Your task to perform on an android device: open a new tab in the chrome app Image 0: 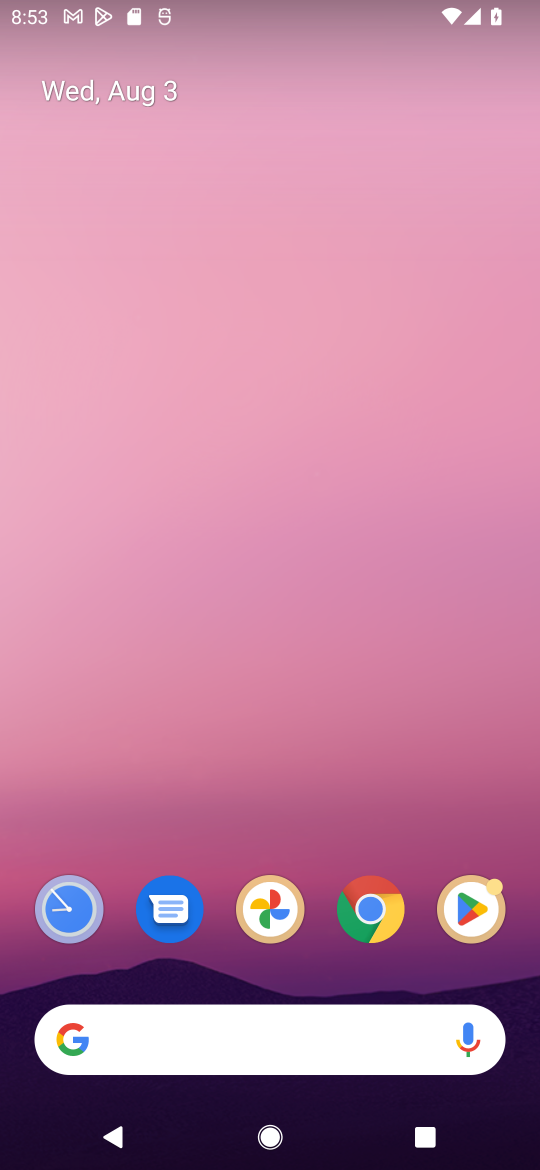
Step 0: press home button
Your task to perform on an android device: open a new tab in the chrome app Image 1: 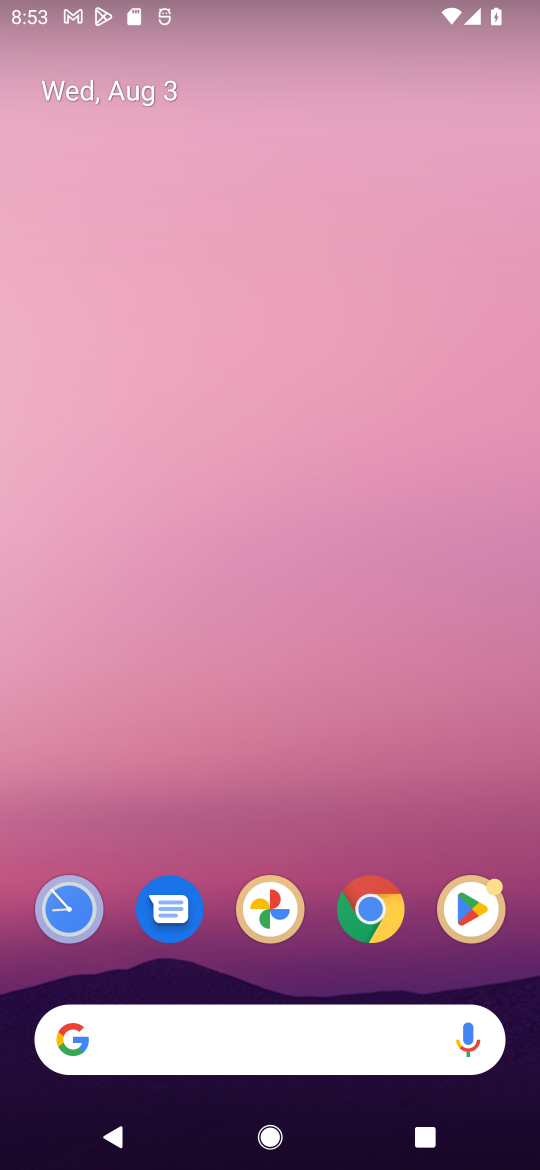
Step 1: drag from (420, 846) to (454, 372)
Your task to perform on an android device: open a new tab in the chrome app Image 2: 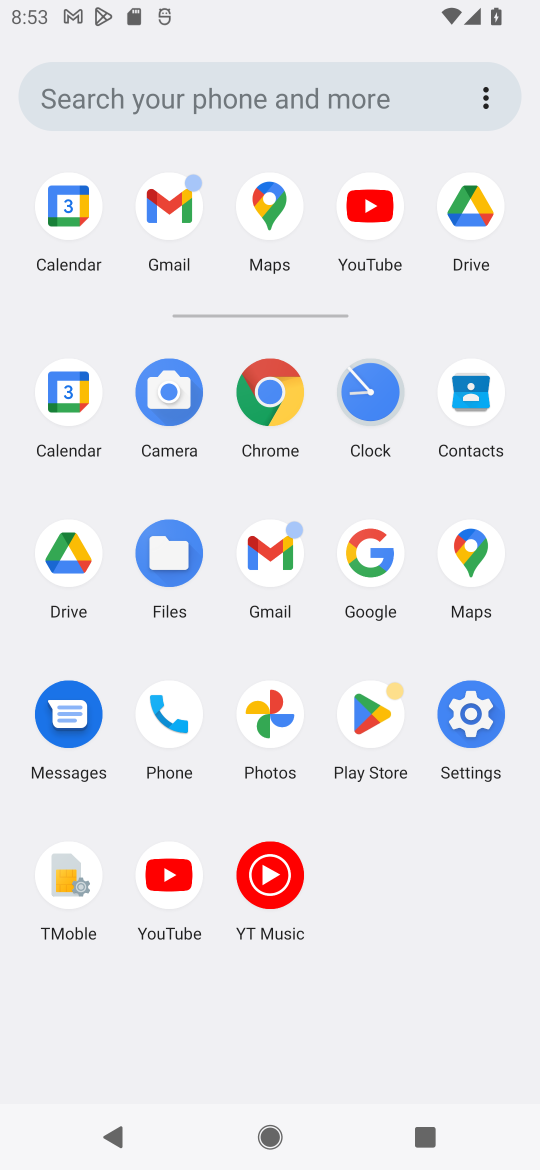
Step 2: click (276, 389)
Your task to perform on an android device: open a new tab in the chrome app Image 3: 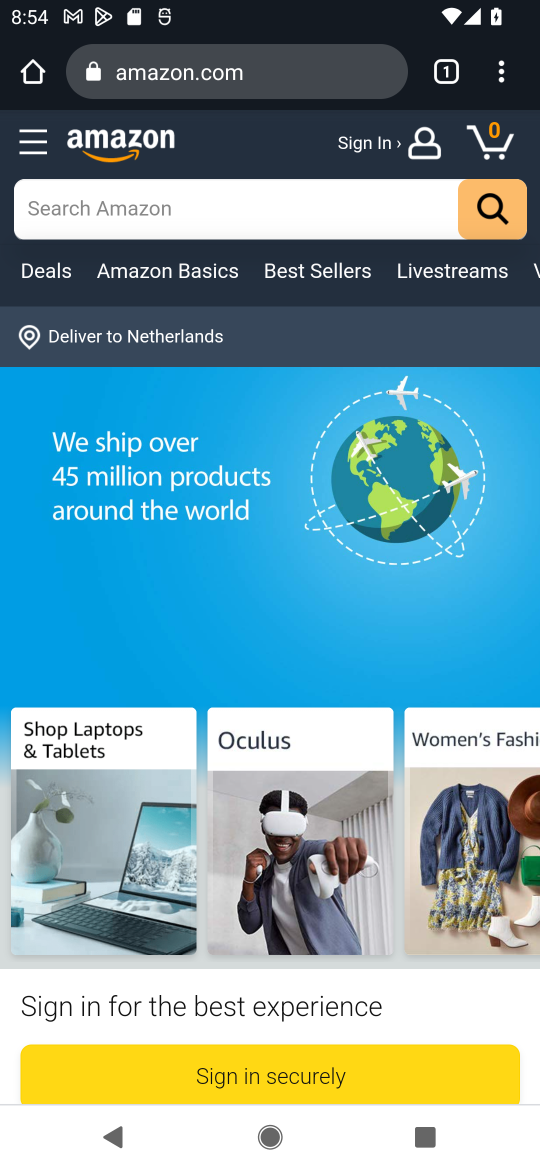
Step 3: click (508, 79)
Your task to perform on an android device: open a new tab in the chrome app Image 4: 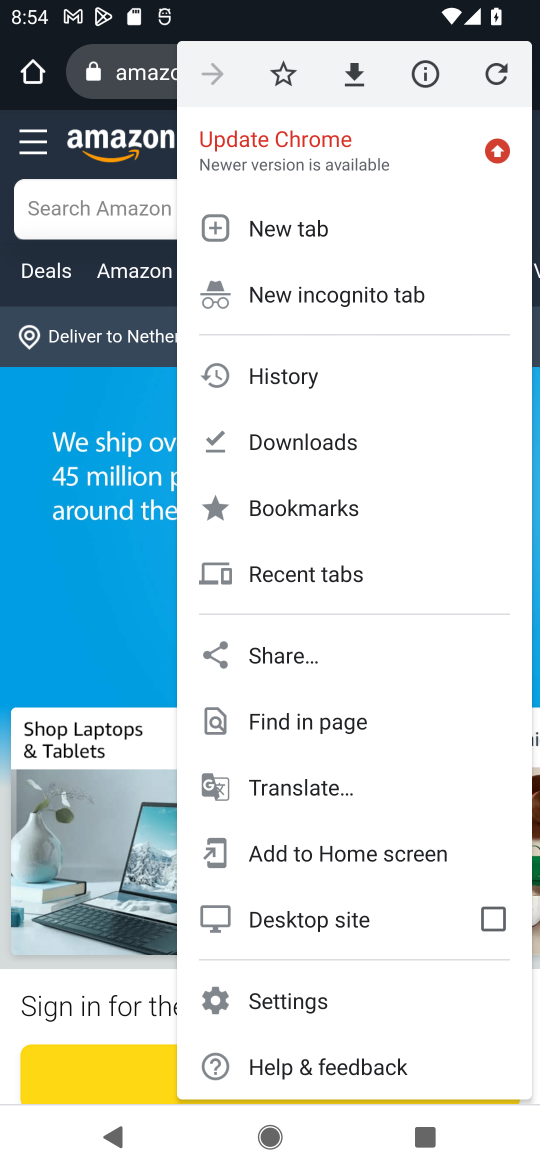
Step 4: click (321, 235)
Your task to perform on an android device: open a new tab in the chrome app Image 5: 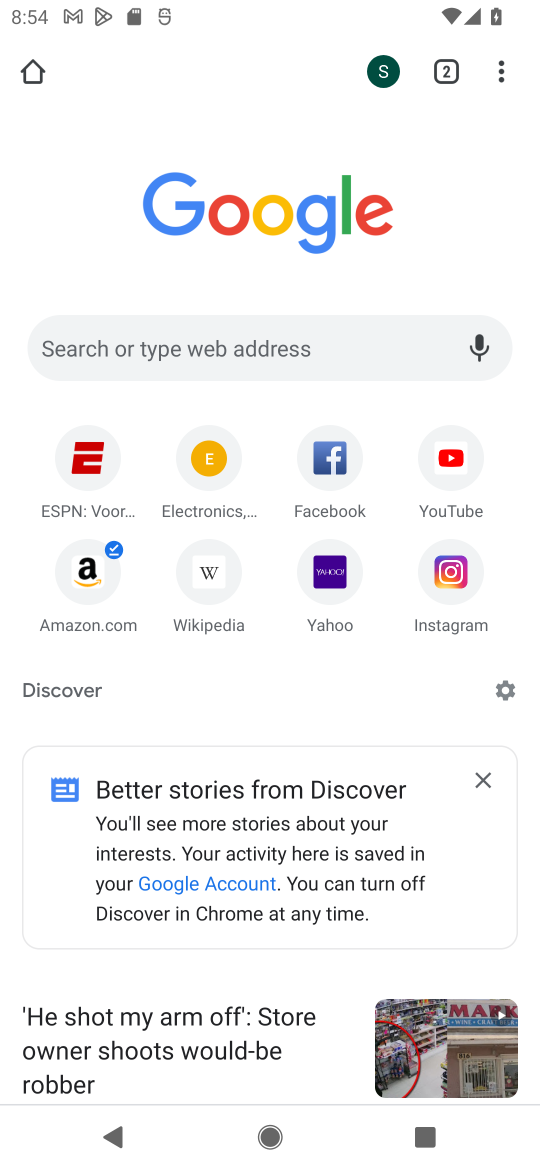
Step 5: task complete